Your task to perform on an android device: Go to Android settings Image 0: 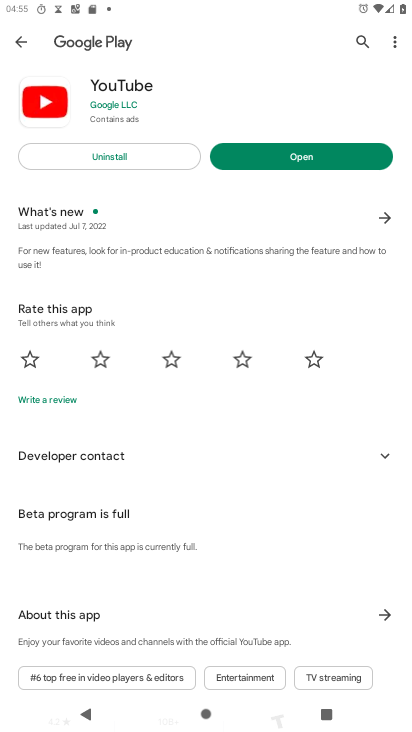
Step 0: press home button
Your task to perform on an android device: Go to Android settings Image 1: 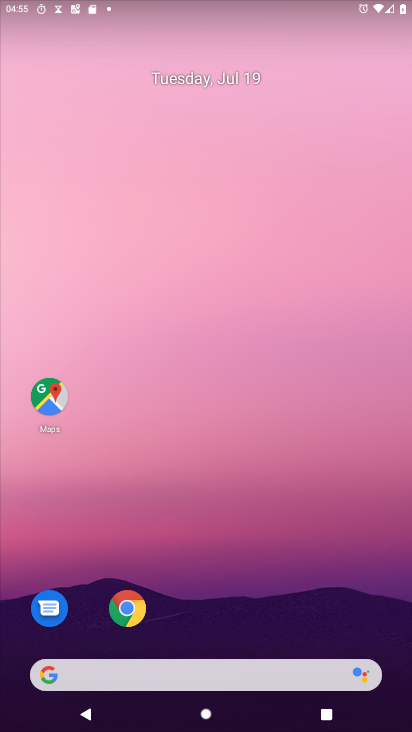
Step 1: drag from (151, 676) to (162, 216)
Your task to perform on an android device: Go to Android settings Image 2: 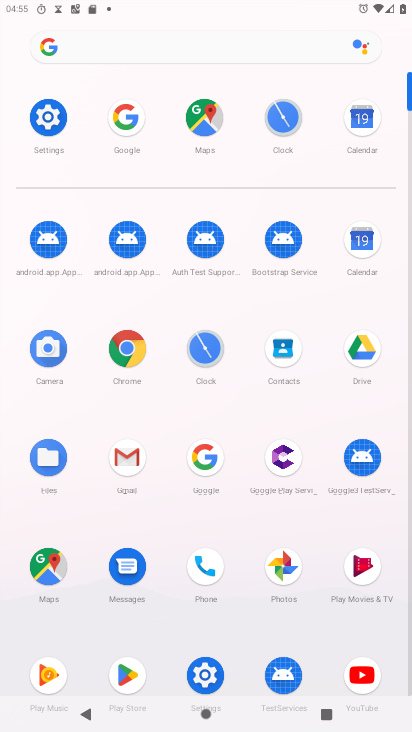
Step 2: click (47, 118)
Your task to perform on an android device: Go to Android settings Image 3: 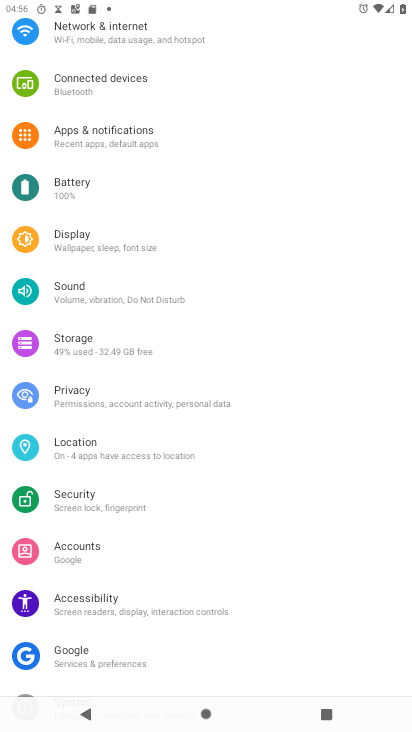
Step 3: task complete